Your task to perform on an android device: What is the recent news? Image 0: 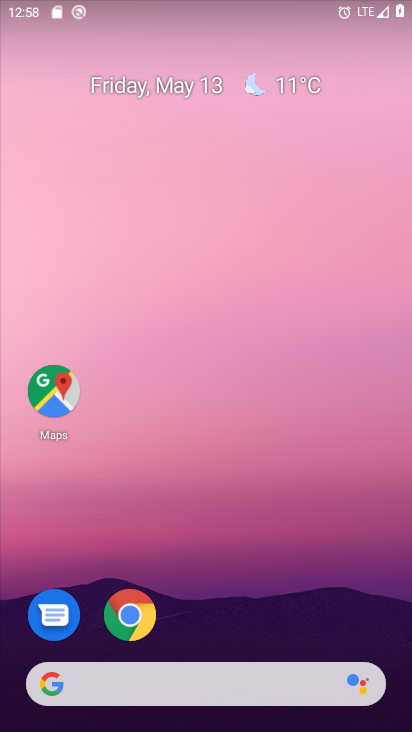
Step 0: click (265, 676)
Your task to perform on an android device: What is the recent news? Image 1: 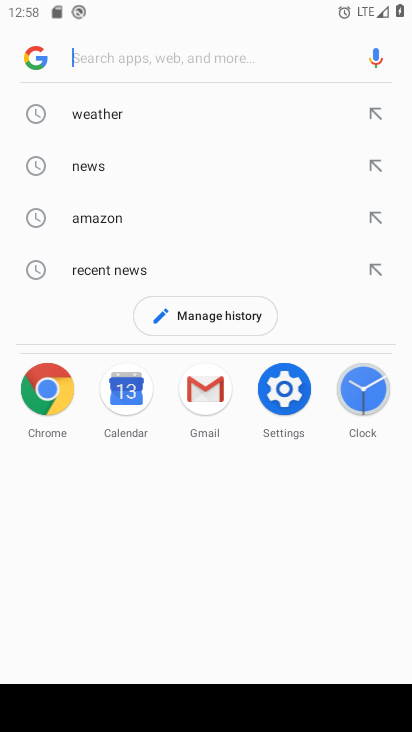
Step 1: click (63, 266)
Your task to perform on an android device: What is the recent news? Image 2: 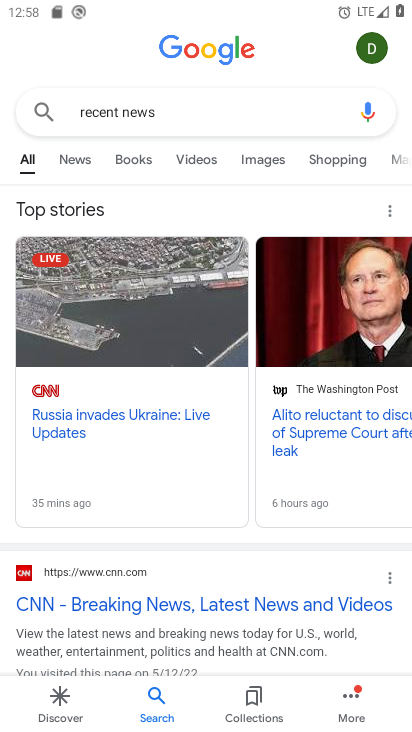
Step 2: task complete